Your task to perform on an android device: turn on priority inbox in the gmail app Image 0: 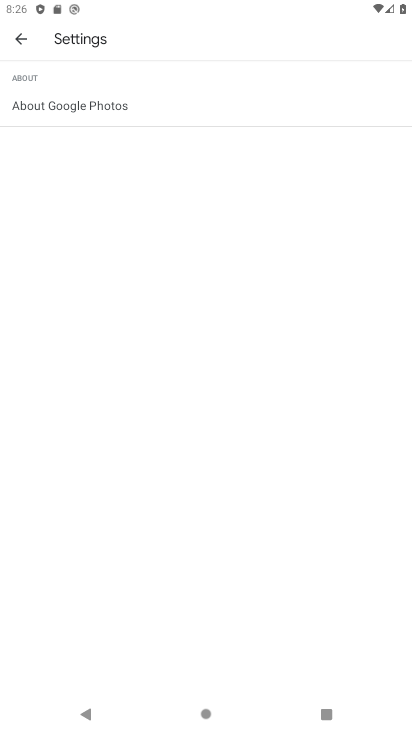
Step 0: press home button
Your task to perform on an android device: turn on priority inbox in the gmail app Image 1: 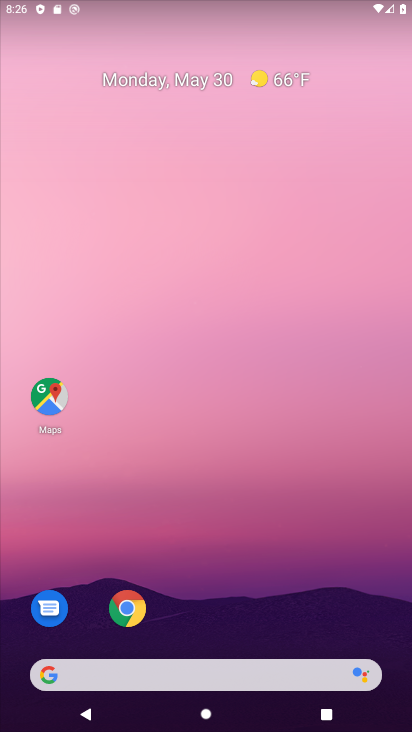
Step 1: drag from (228, 727) to (205, 120)
Your task to perform on an android device: turn on priority inbox in the gmail app Image 2: 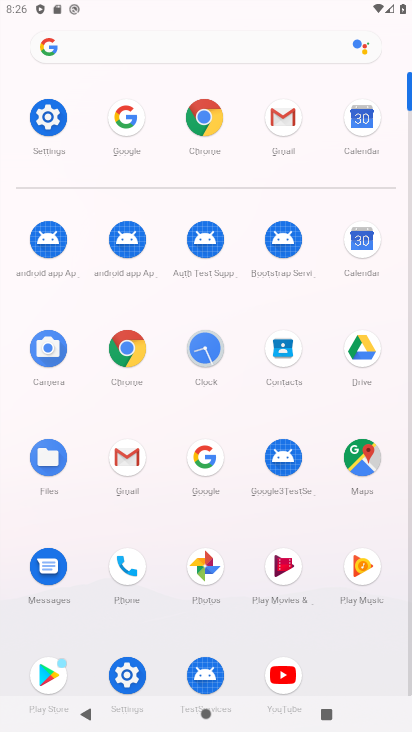
Step 2: click (127, 458)
Your task to perform on an android device: turn on priority inbox in the gmail app Image 3: 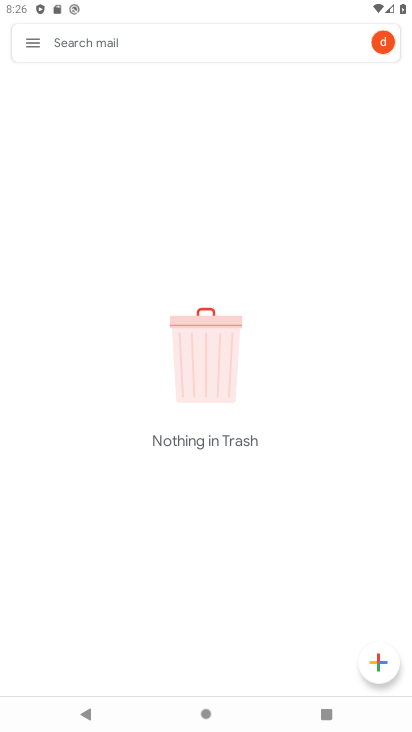
Step 3: click (36, 41)
Your task to perform on an android device: turn on priority inbox in the gmail app Image 4: 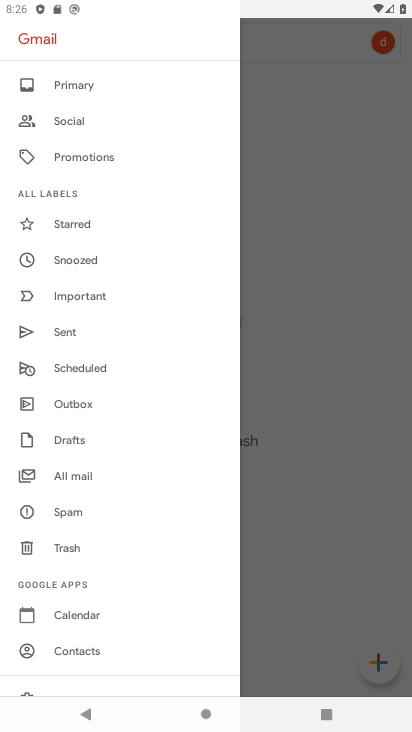
Step 4: drag from (96, 630) to (107, 238)
Your task to perform on an android device: turn on priority inbox in the gmail app Image 5: 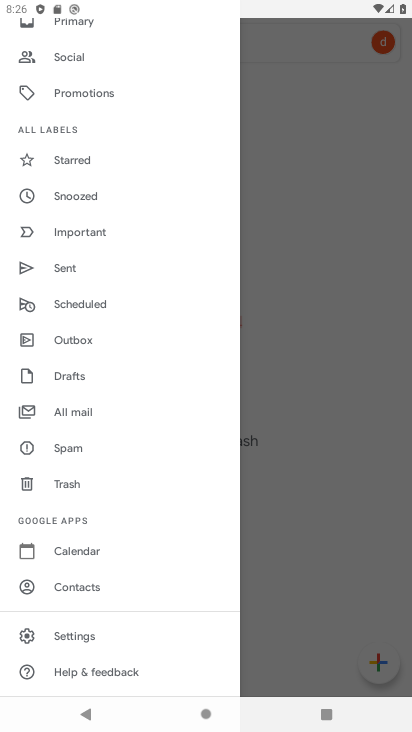
Step 5: click (79, 632)
Your task to perform on an android device: turn on priority inbox in the gmail app Image 6: 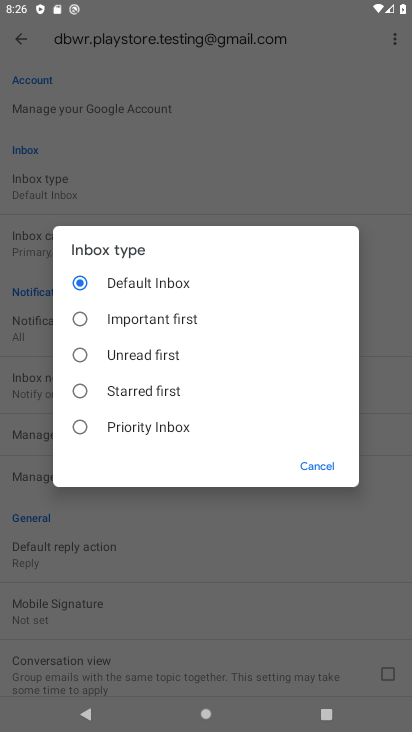
Step 6: click (81, 423)
Your task to perform on an android device: turn on priority inbox in the gmail app Image 7: 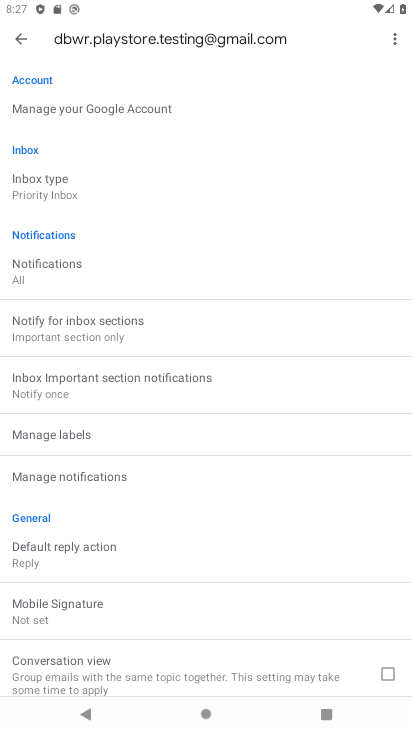
Step 7: task complete